Your task to perform on an android device: Open display settings Image 0: 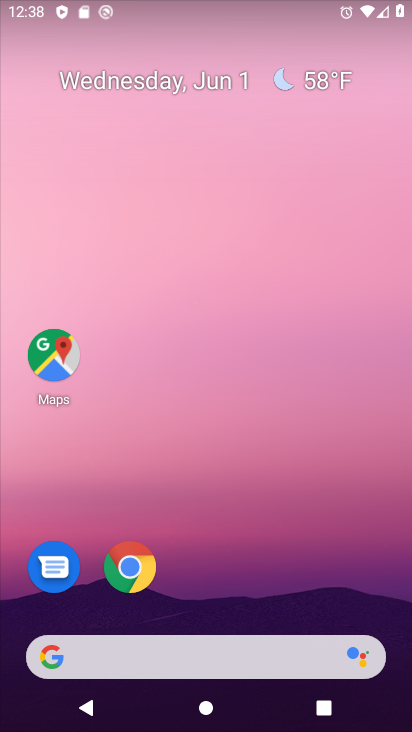
Step 0: drag from (214, 595) to (214, 174)
Your task to perform on an android device: Open display settings Image 1: 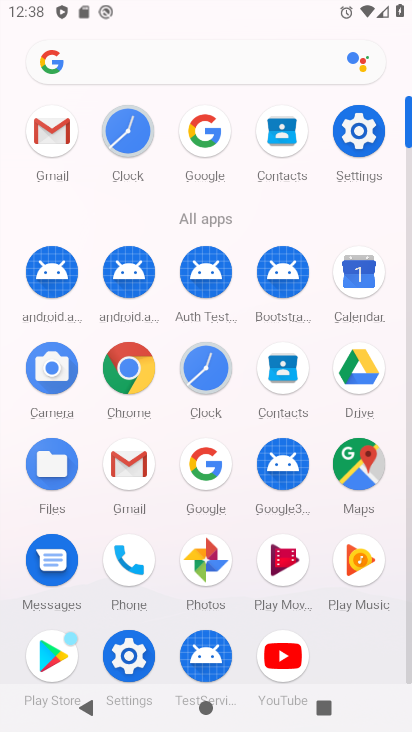
Step 1: click (347, 133)
Your task to perform on an android device: Open display settings Image 2: 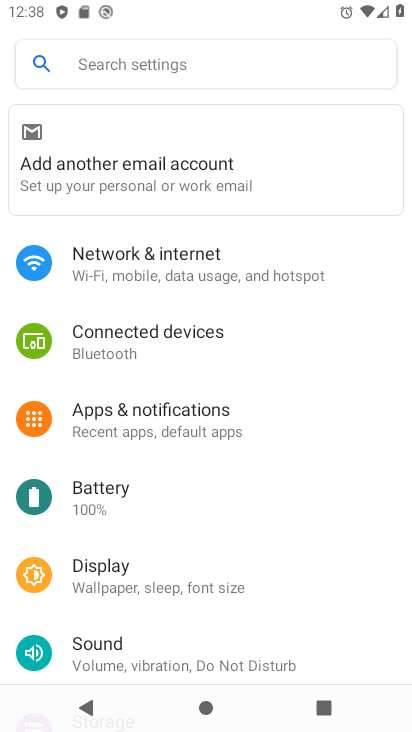
Step 2: click (150, 571)
Your task to perform on an android device: Open display settings Image 3: 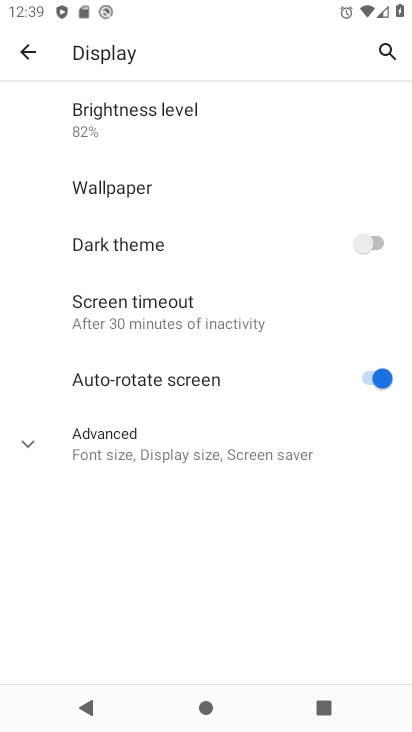
Step 3: task complete